Your task to perform on an android device: Open maps Image 0: 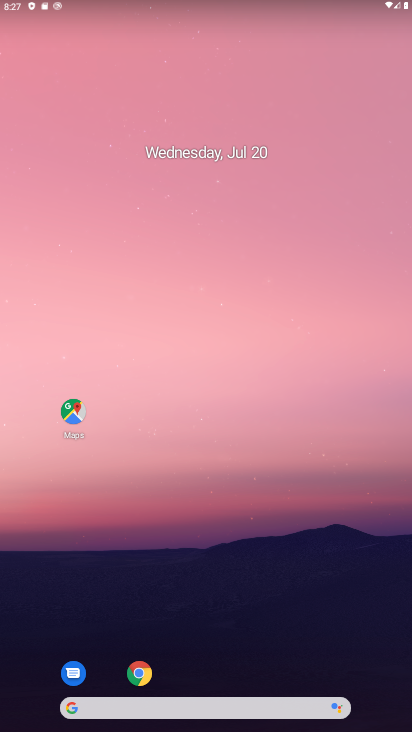
Step 0: drag from (197, 726) to (197, 194)
Your task to perform on an android device: Open maps Image 1: 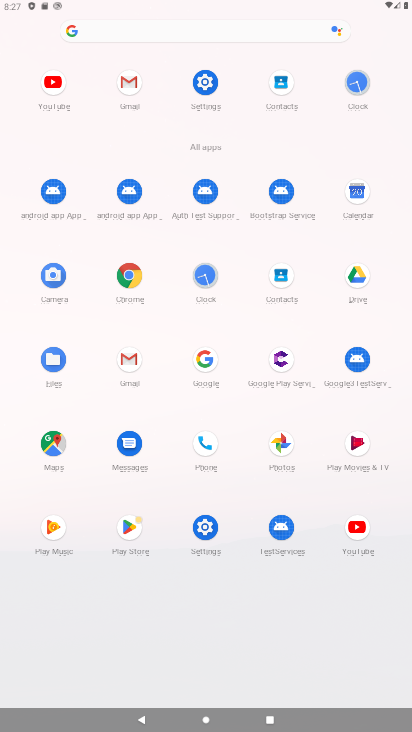
Step 1: click (52, 436)
Your task to perform on an android device: Open maps Image 2: 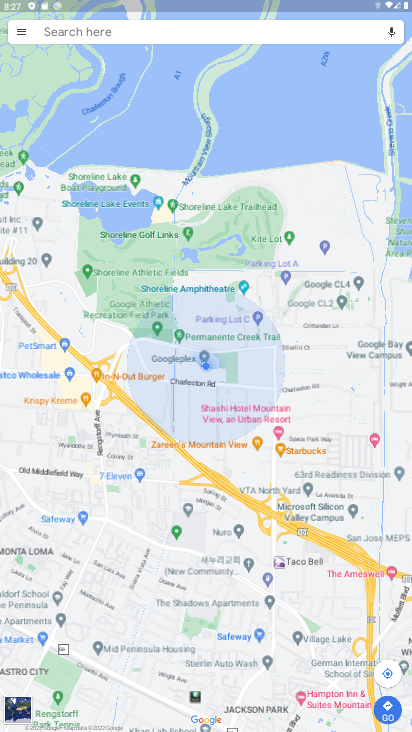
Step 2: task complete